Your task to perform on an android device: check android version Image 0: 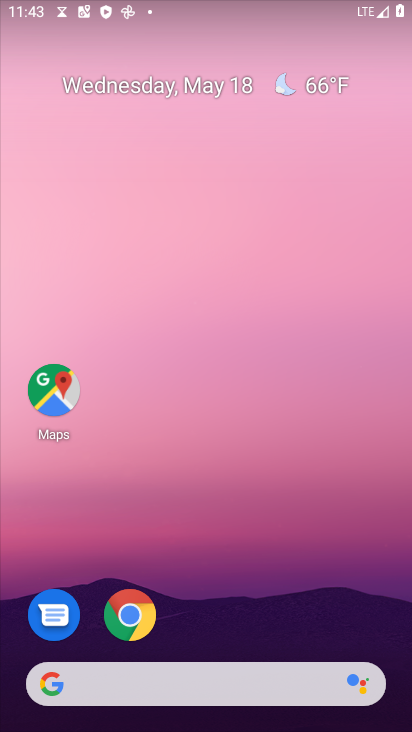
Step 0: drag from (274, 577) to (237, 17)
Your task to perform on an android device: check android version Image 1: 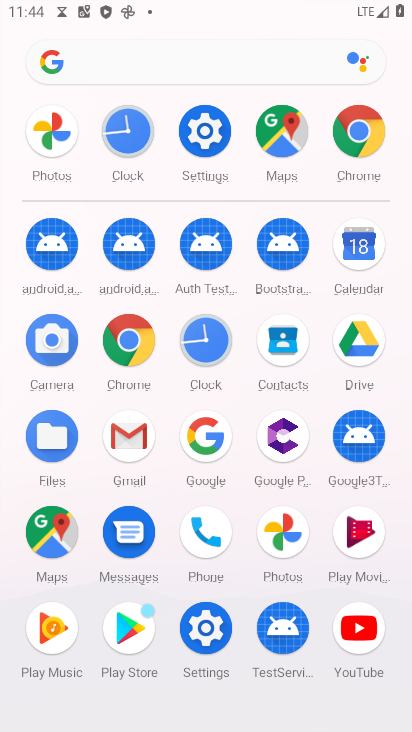
Step 1: click (201, 626)
Your task to perform on an android device: check android version Image 2: 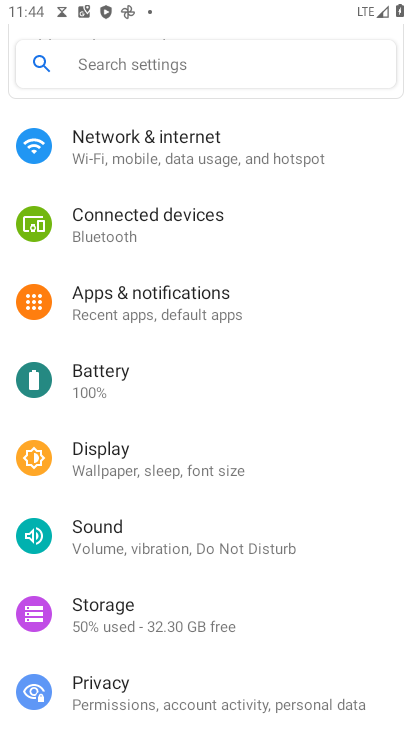
Step 2: drag from (264, 566) to (299, 151)
Your task to perform on an android device: check android version Image 3: 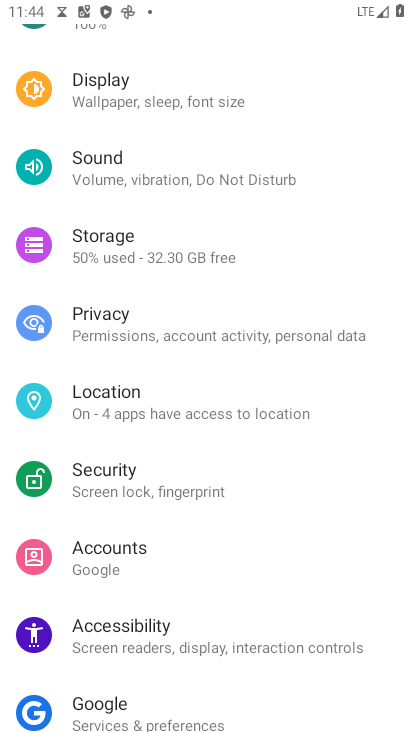
Step 3: drag from (240, 573) to (283, 161)
Your task to perform on an android device: check android version Image 4: 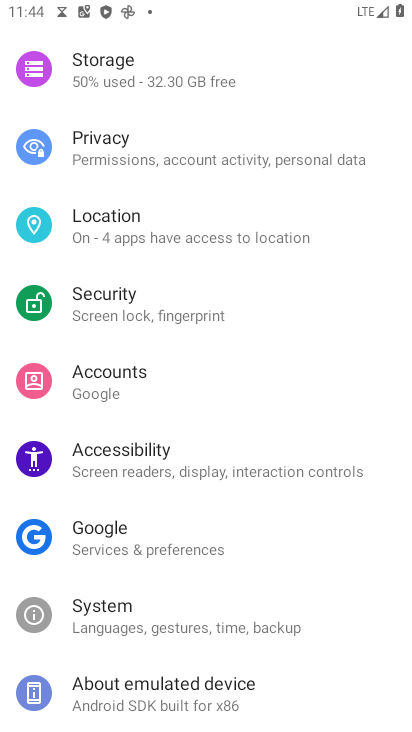
Step 4: click (202, 700)
Your task to perform on an android device: check android version Image 5: 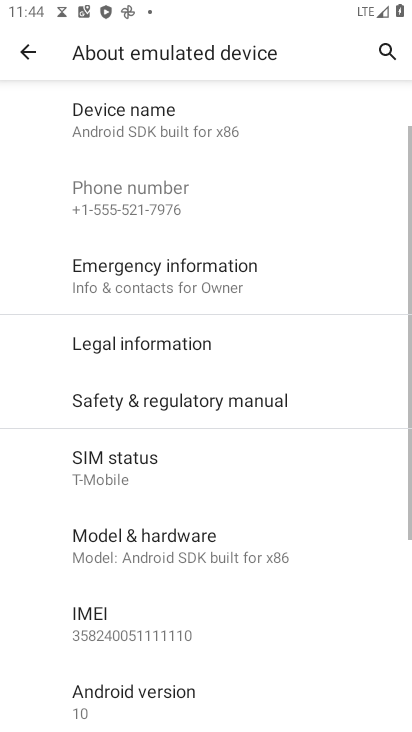
Step 5: task complete